Your task to perform on an android device: Go to location settings Image 0: 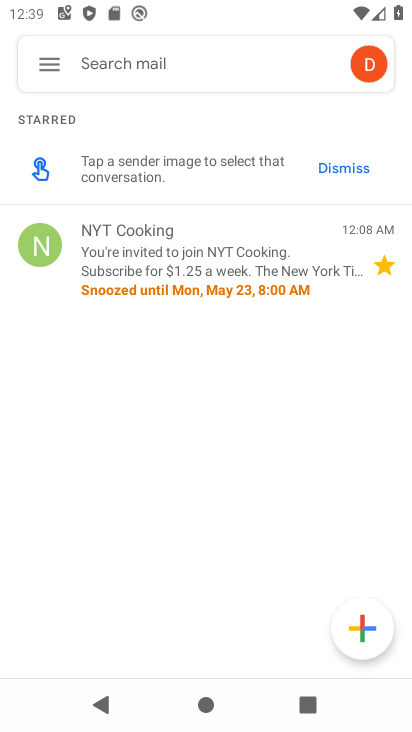
Step 0: press home button
Your task to perform on an android device: Go to location settings Image 1: 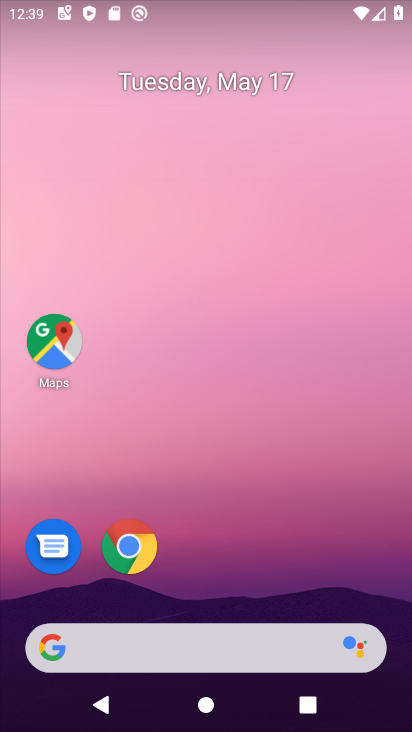
Step 1: drag from (406, 632) to (292, 61)
Your task to perform on an android device: Go to location settings Image 2: 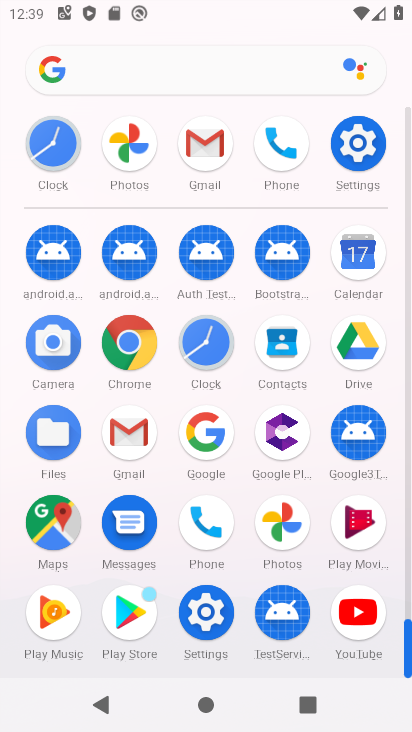
Step 2: click (209, 618)
Your task to perform on an android device: Go to location settings Image 3: 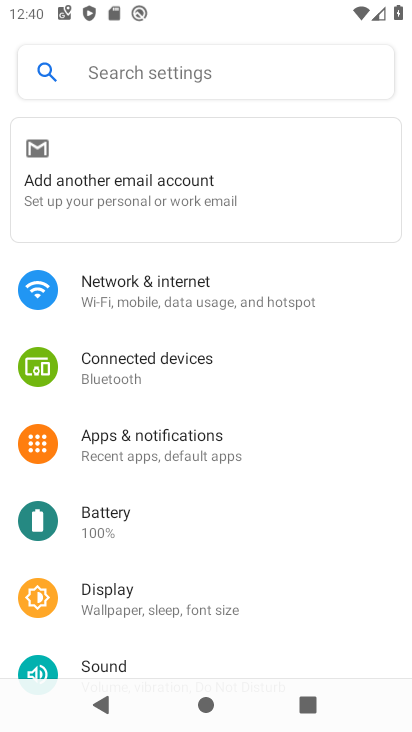
Step 3: drag from (277, 602) to (301, 38)
Your task to perform on an android device: Go to location settings Image 4: 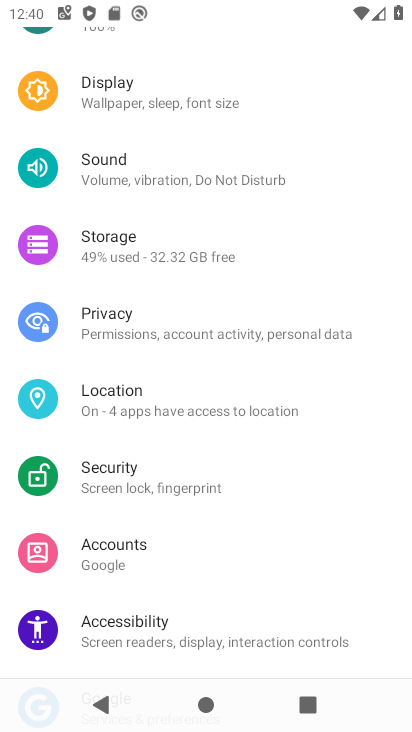
Step 4: click (126, 398)
Your task to perform on an android device: Go to location settings Image 5: 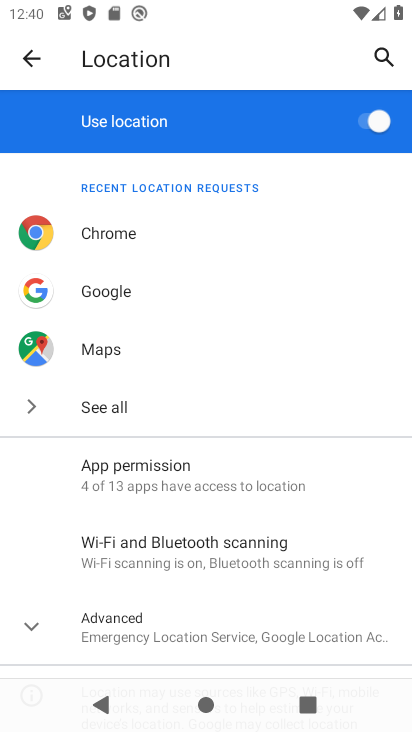
Step 5: drag from (158, 571) to (188, 242)
Your task to perform on an android device: Go to location settings Image 6: 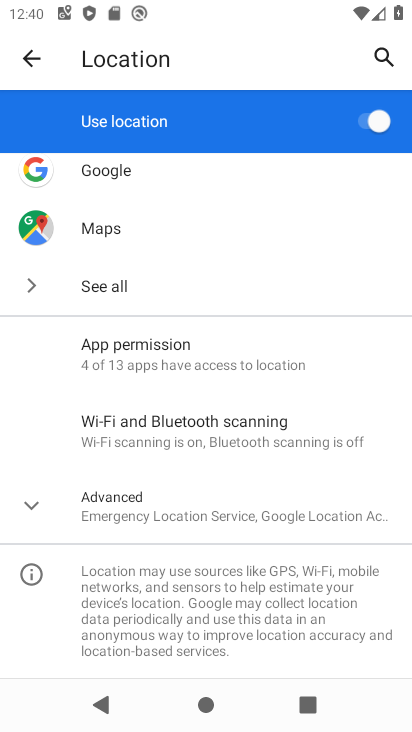
Step 6: click (32, 500)
Your task to perform on an android device: Go to location settings Image 7: 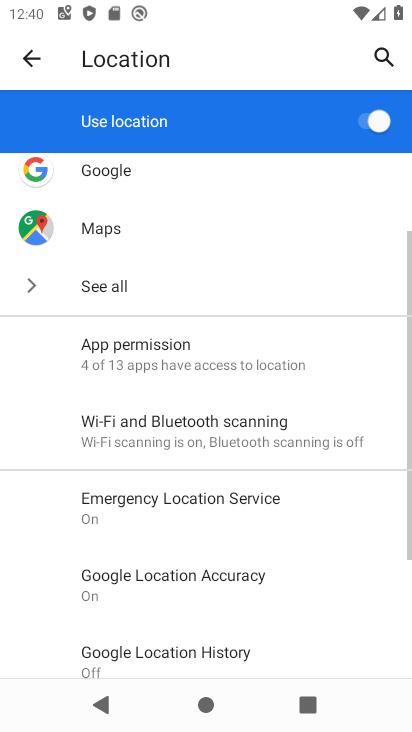
Step 7: task complete